Your task to perform on an android device: turn off translation in the chrome app Image 0: 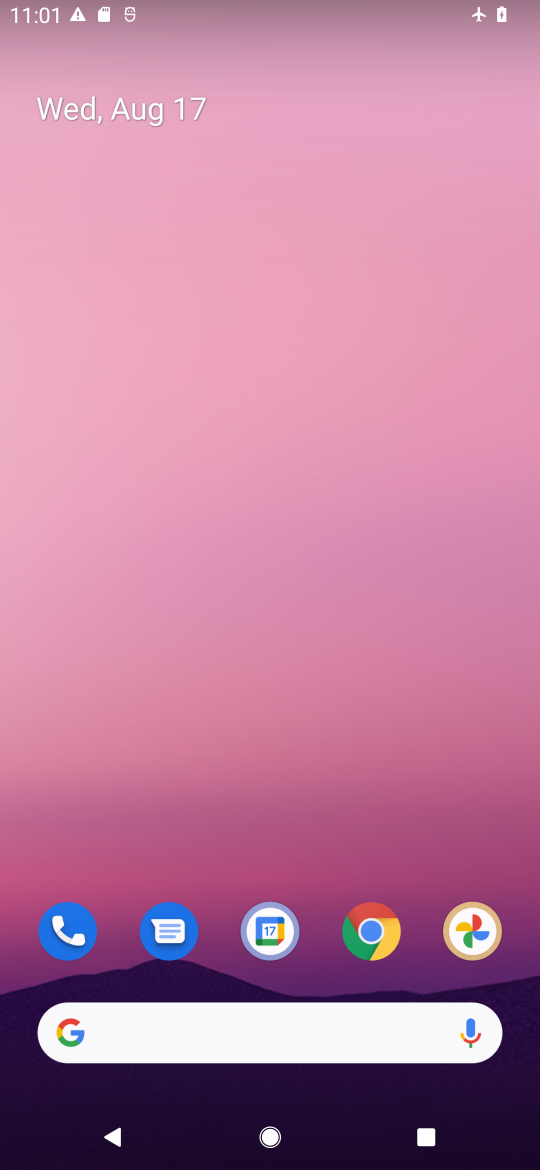
Step 0: click (320, 117)
Your task to perform on an android device: turn off translation in the chrome app Image 1: 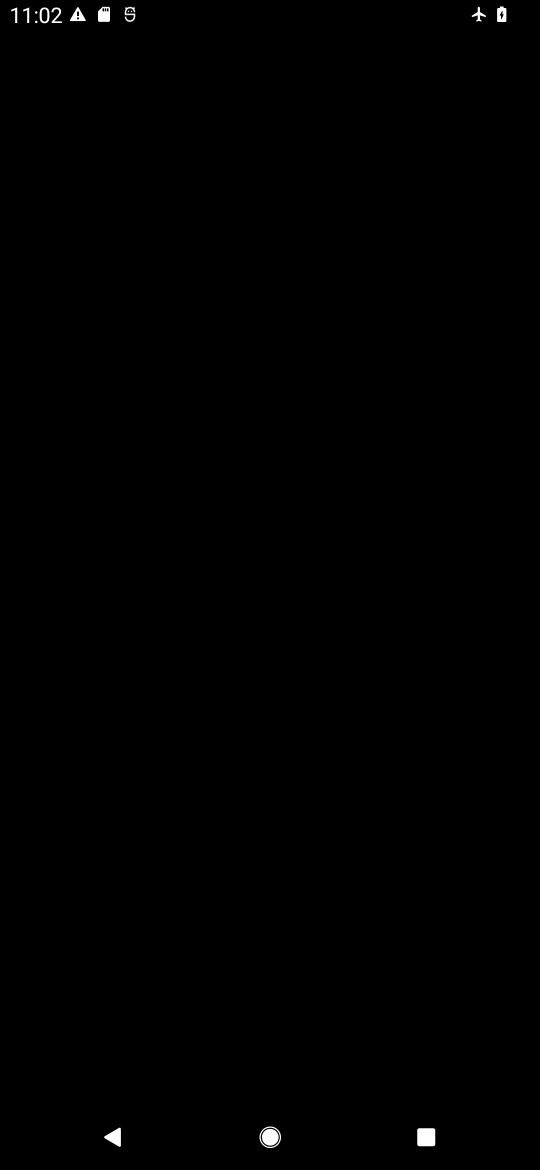
Step 1: press home button
Your task to perform on an android device: turn off translation in the chrome app Image 2: 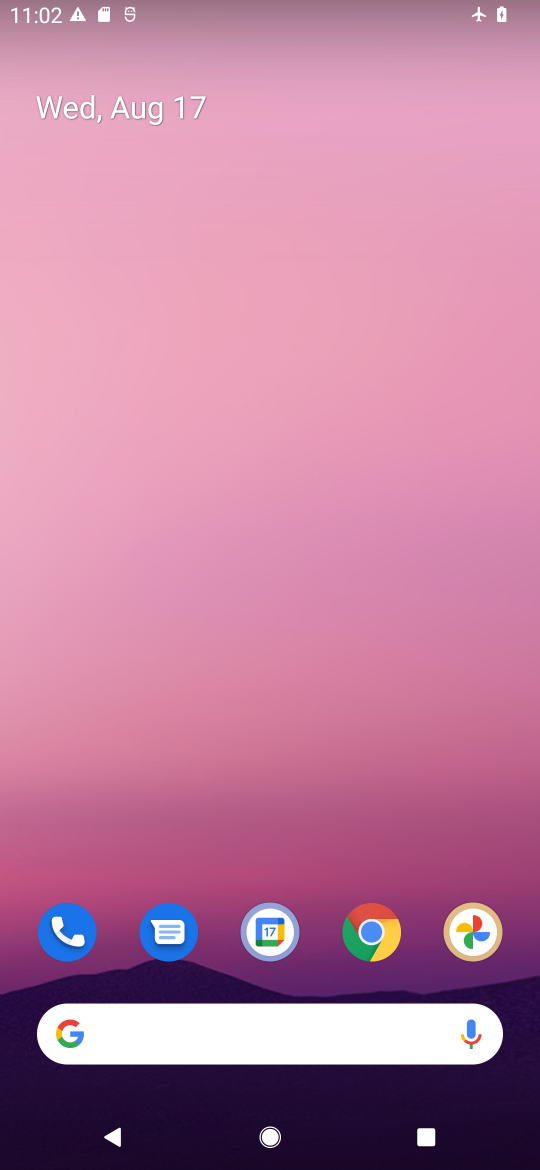
Step 2: click (360, 904)
Your task to perform on an android device: turn off translation in the chrome app Image 3: 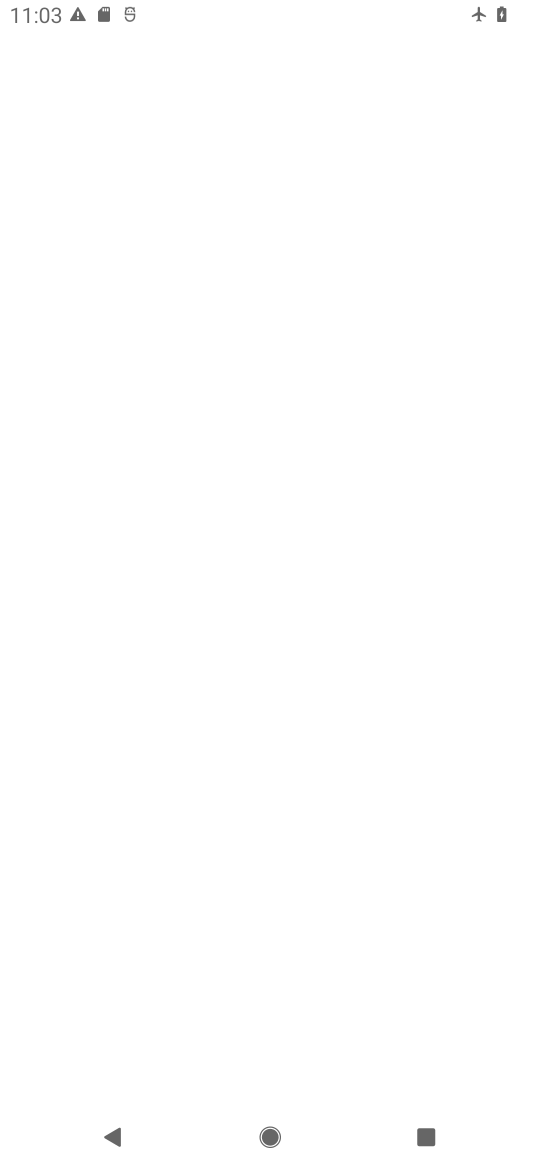
Step 3: task complete